Your task to perform on an android device: What's on my calendar today? Image 0: 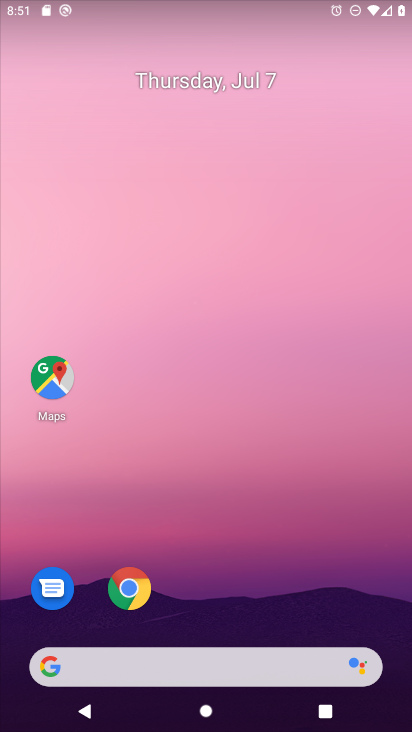
Step 0: drag from (181, 604) to (181, 243)
Your task to perform on an android device: What's on my calendar today? Image 1: 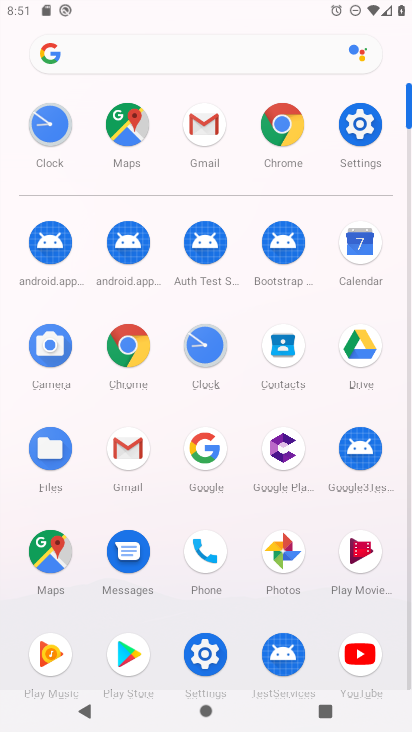
Step 1: click (356, 243)
Your task to perform on an android device: What's on my calendar today? Image 2: 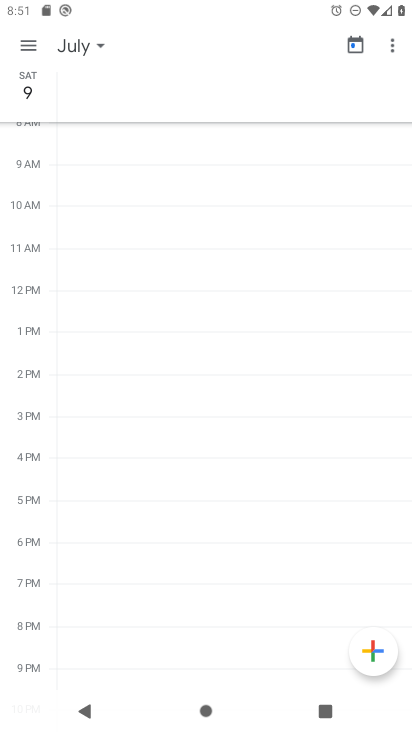
Step 2: click (31, 36)
Your task to perform on an android device: What's on my calendar today? Image 3: 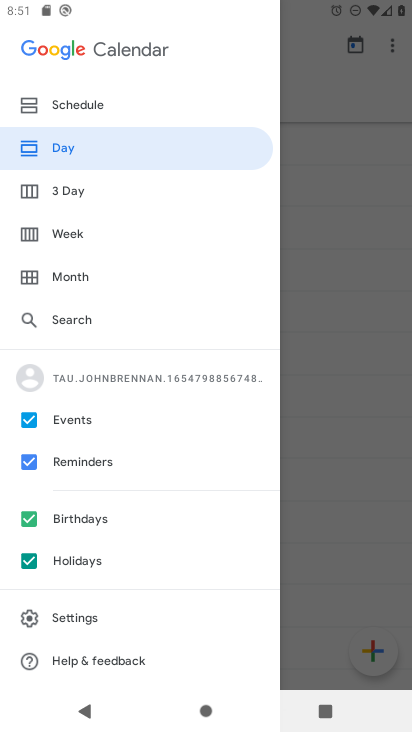
Step 3: click (86, 272)
Your task to perform on an android device: What's on my calendar today? Image 4: 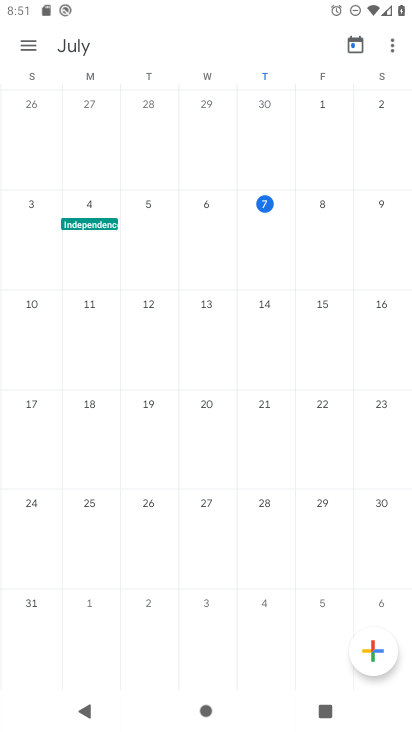
Step 4: click (315, 242)
Your task to perform on an android device: What's on my calendar today? Image 5: 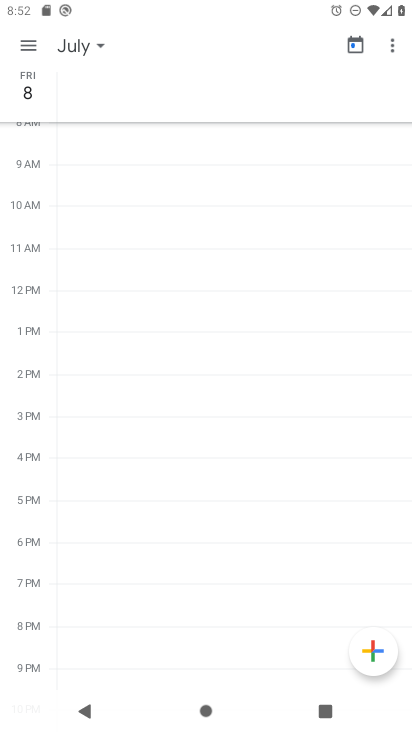
Step 5: task complete